Your task to perform on an android device: turn off improve location accuracy Image 0: 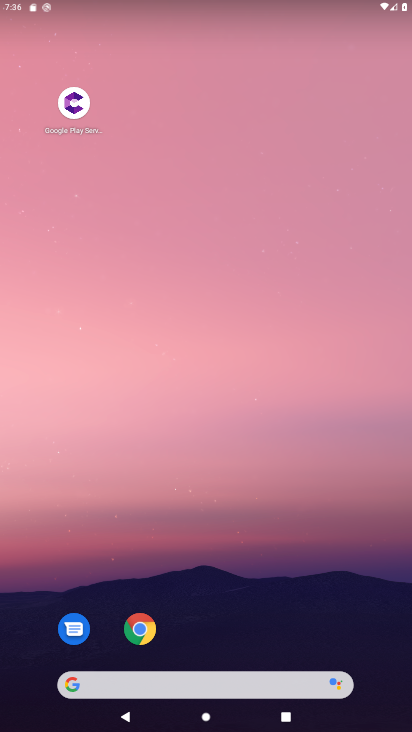
Step 0: drag from (335, 607) to (310, 3)
Your task to perform on an android device: turn off improve location accuracy Image 1: 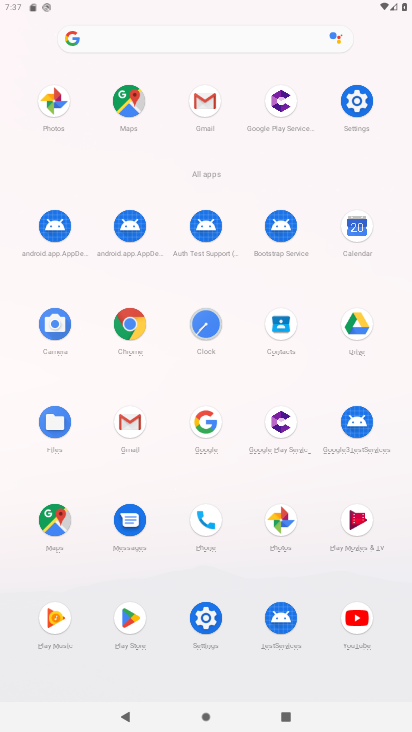
Step 1: click (211, 615)
Your task to perform on an android device: turn off improve location accuracy Image 2: 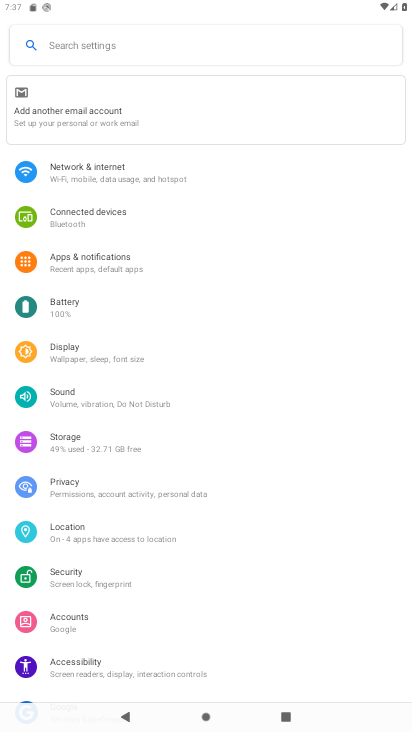
Step 2: click (104, 529)
Your task to perform on an android device: turn off improve location accuracy Image 3: 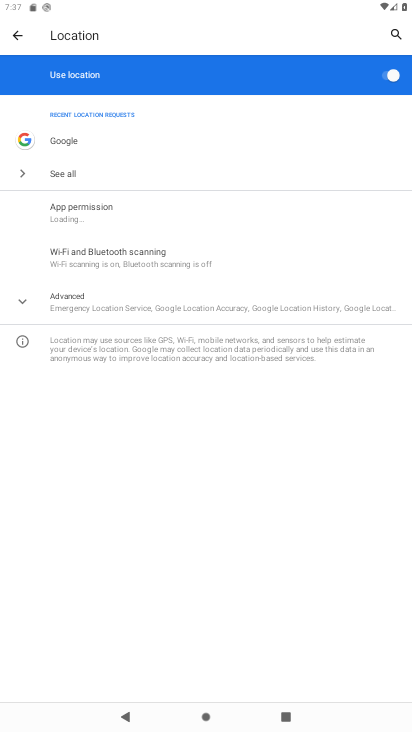
Step 3: click (74, 304)
Your task to perform on an android device: turn off improve location accuracy Image 4: 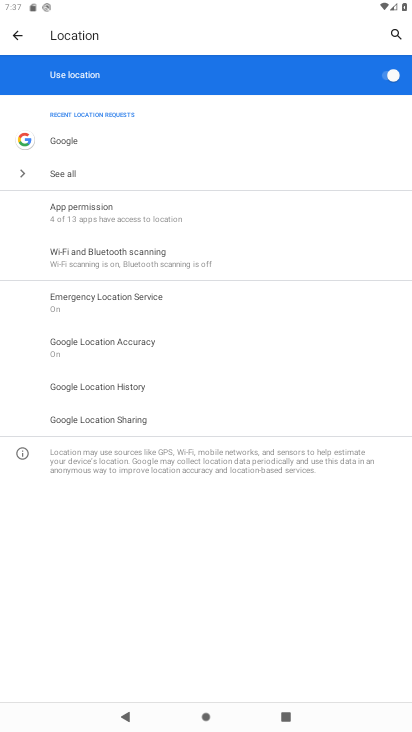
Step 4: click (94, 343)
Your task to perform on an android device: turn off improve location accuracy Image 5: 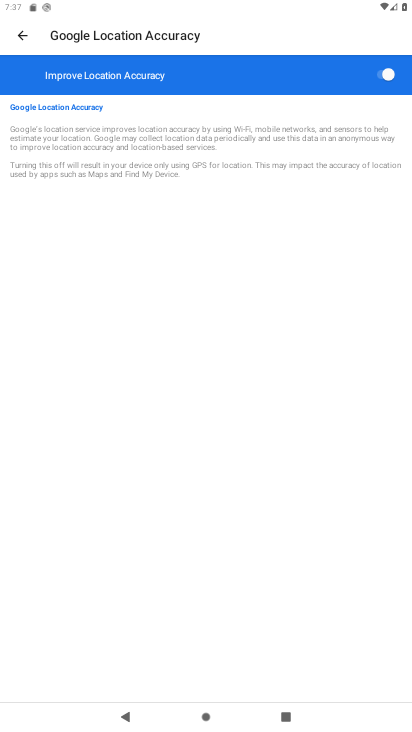
Step 5: click (399, 75)
Your task to perform on an android device: turn off improve location accuracy Image 6: 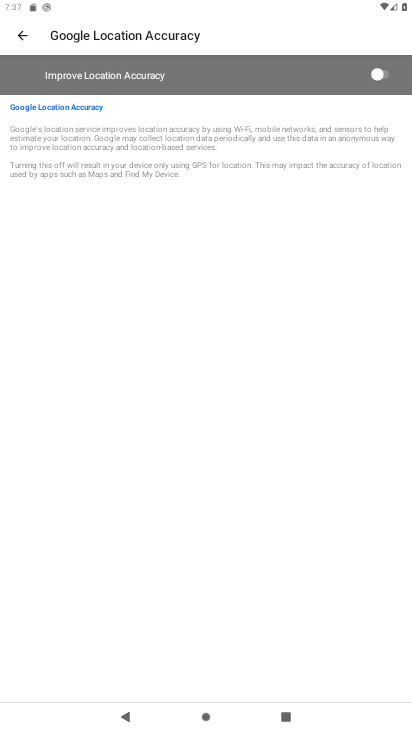
Step 6: task complete